Your task to perform on an android device: Open settings Image 0: 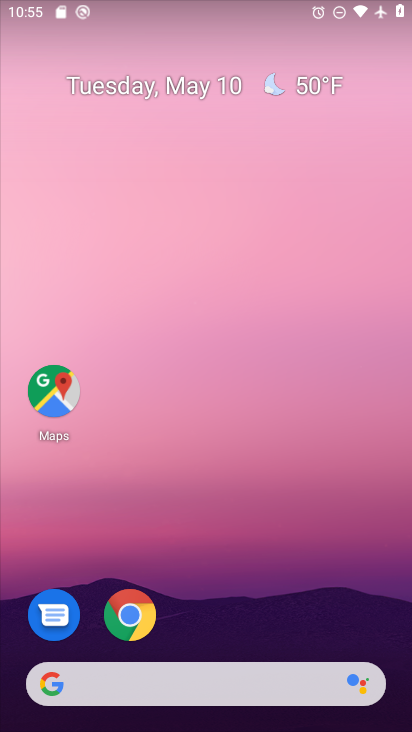
Step 0: drag from (373, 622) to (230, 109)
Your task to perform on an android device: Open settings Image 1: 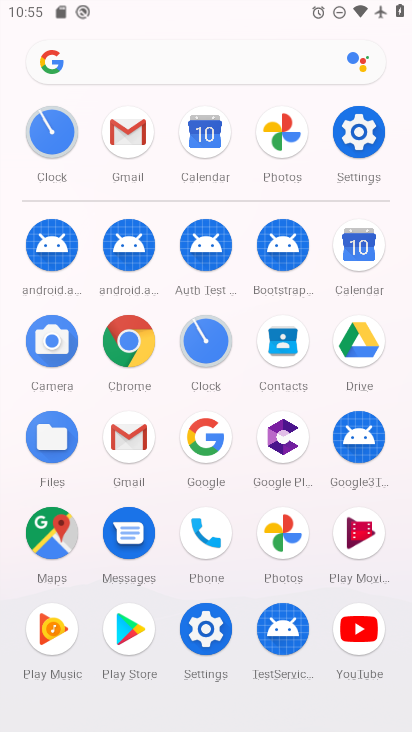
Step 1: click (209, 632)
Your task to perform on an android device: Open settings Image 2: 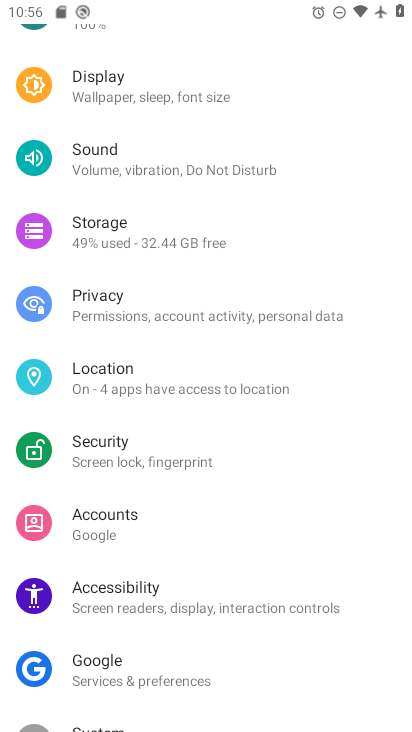
Step 2: task complete